Your task to perform on an android device: turn off location Image 0: 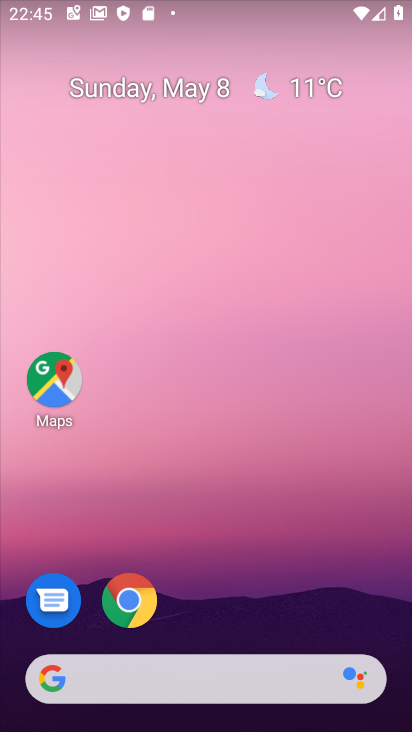
Step 0: drag from (237, 620) to (243, 414)
Your task to perform on an android device: turn off location Image 1: 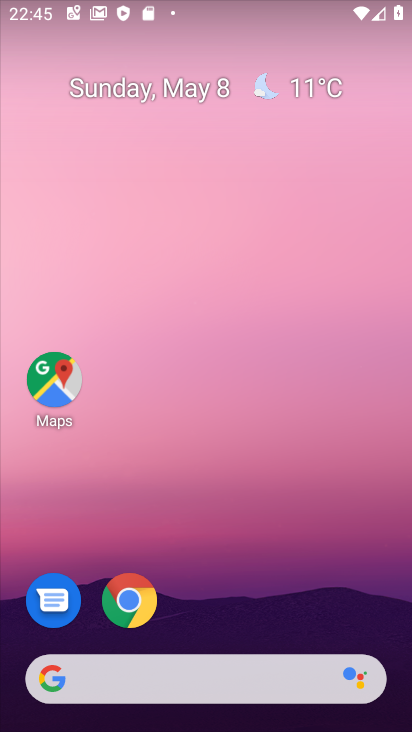
Step 1: drag from (216, 607) to (278, 8)
Your task to perform on an android device: turn off location Image 2: 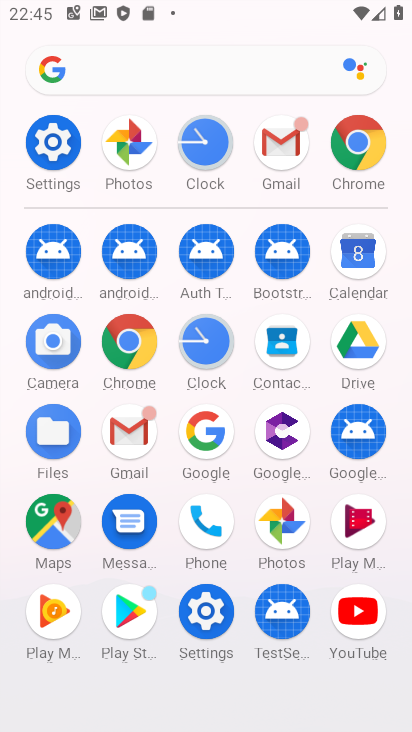
Step 2: click (48, 159)
Your task to perform on an android device: turn off location Image 3: 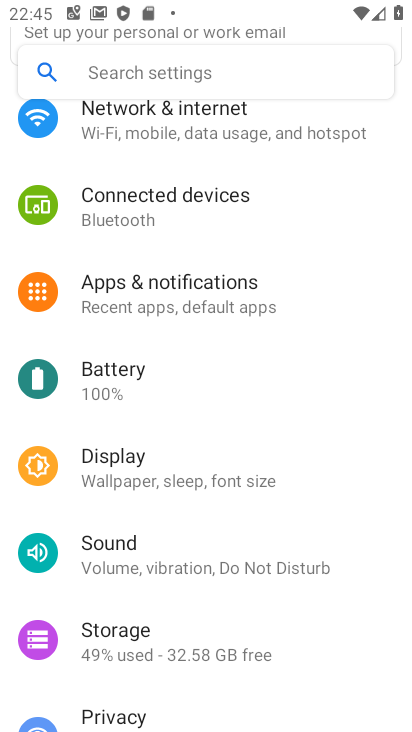
Step 3: drag from (306, 364) to (372, 16)
Your task to perform on an android device: turn off location Image 4: 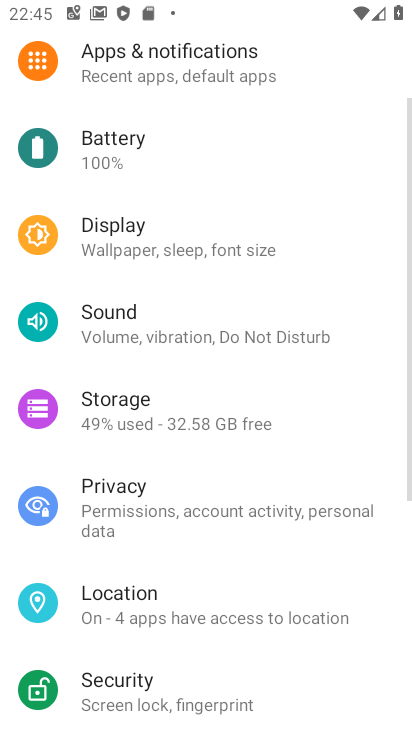
Step 4: click (125, 624)
Your task to perform on an android device: turn off location Image 5: 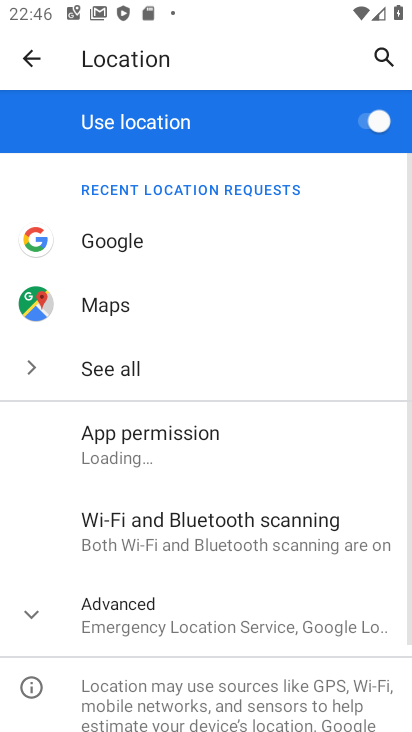
Step 5: click (374, 119)
Your task to perform on an android device: turn off location Image 6: 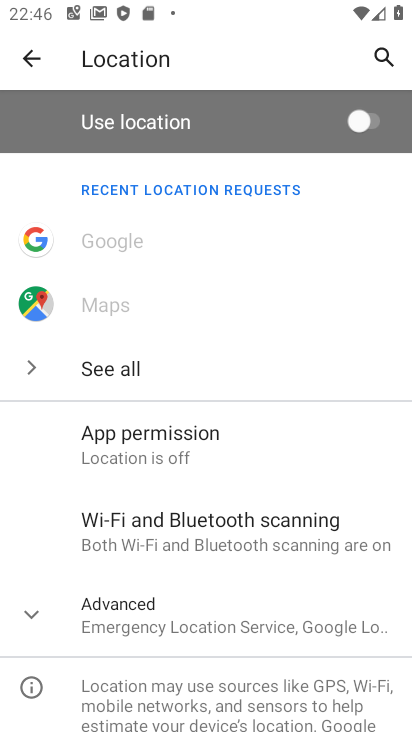
Step 6: task complete